Your task to perform on an android device: turn vacation reply on in the gmail app Image 0: 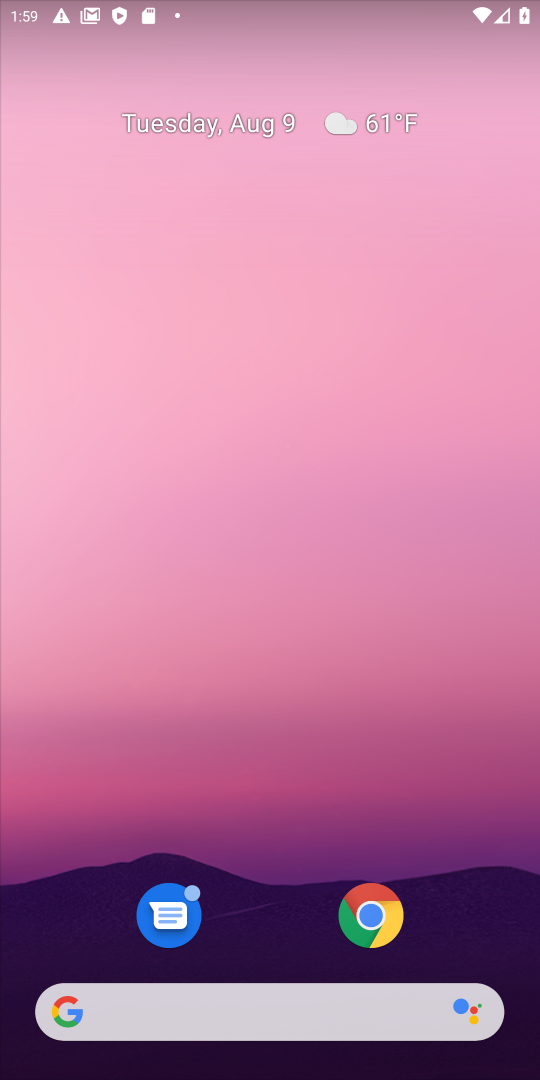
Step 0: click (289, 182)
Your task to perform on an android device: turn vacation reply on in the gmail app Image 1: 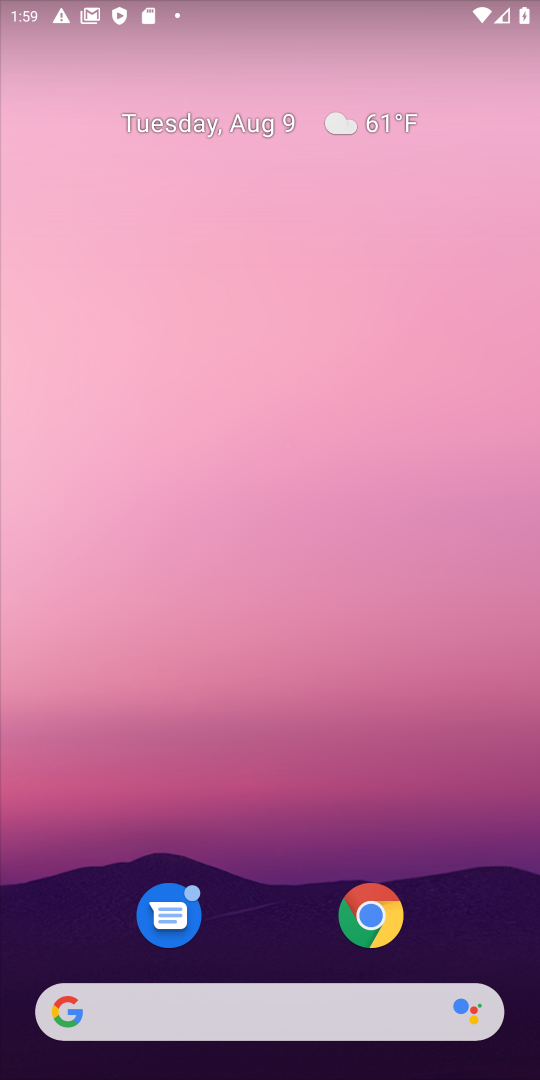
Step 1: click (263, 404)
Your task to perform on an android device: turn vacation reply on in the gmail app Image 2: 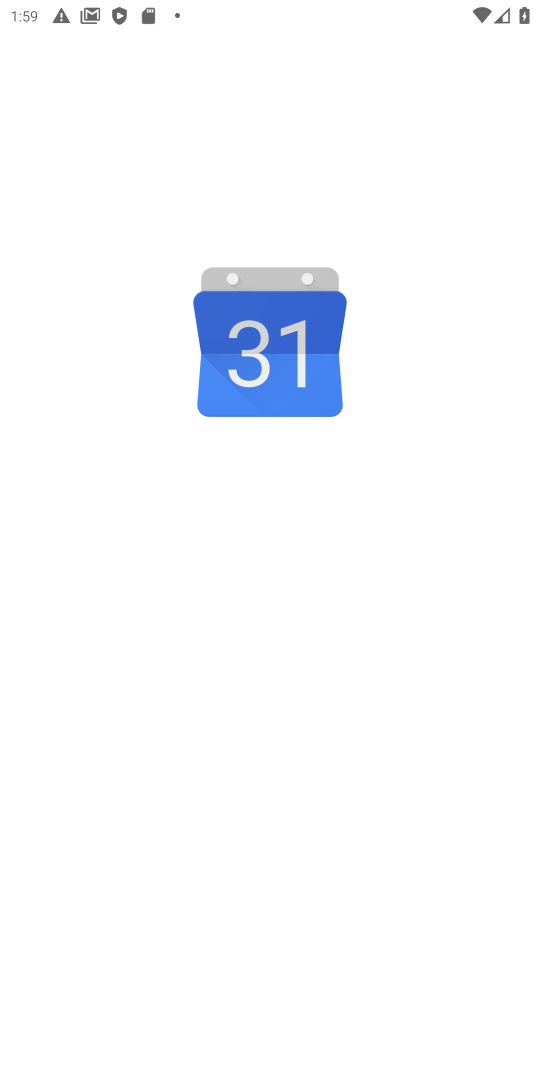
Step 2: drag from (282, 635) to (219, 308)
Your task to perform on an android device: turn vacation reply on in the gmail app Image 3: 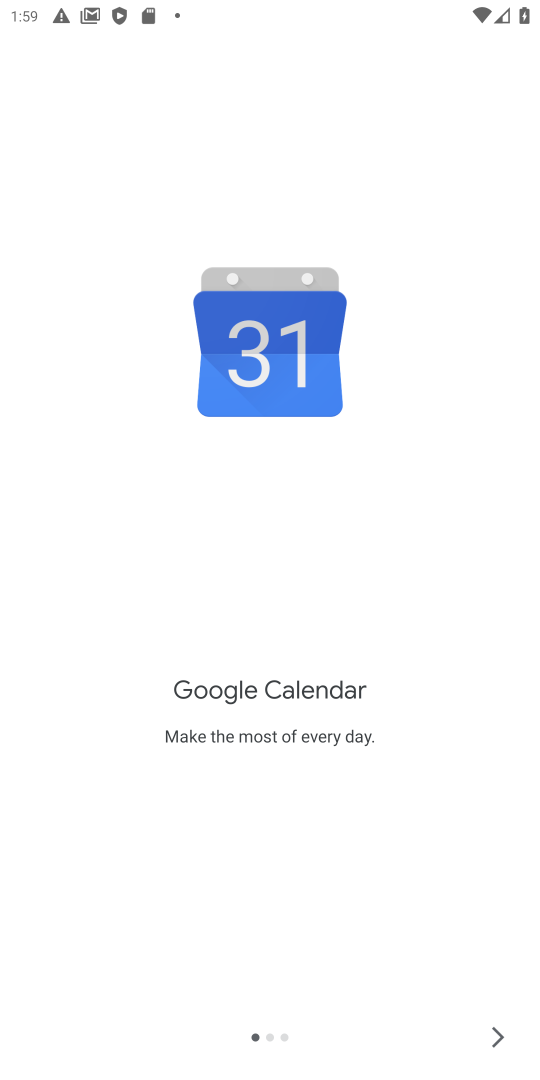
Step 3: press back button
Your task to perform on an android device: turn vacation reply on in the gmail app Image 4: 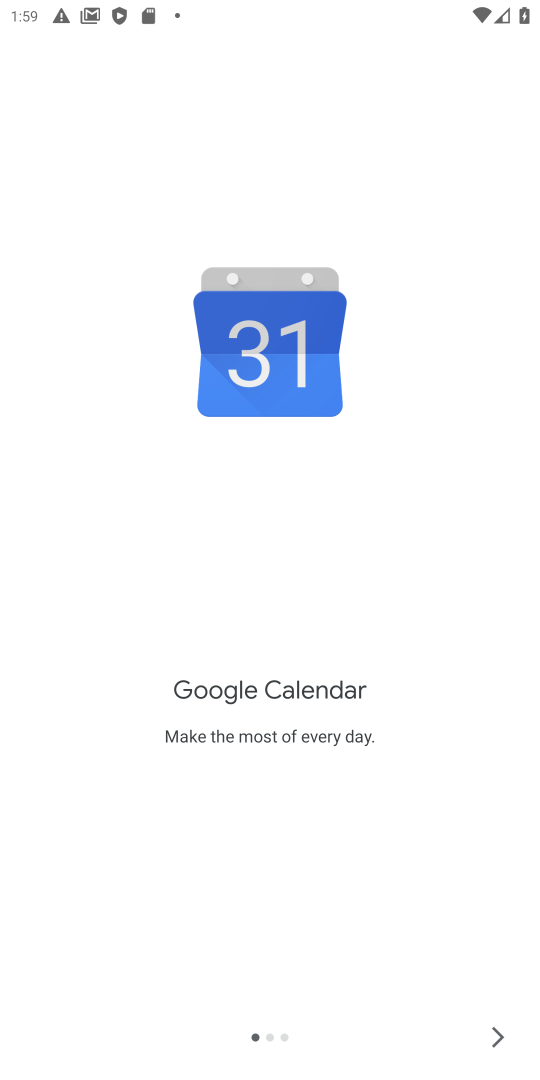
Step 4: press back button
Your task to perform on an android device: turn vacation reply on in the gmail app Image 5: 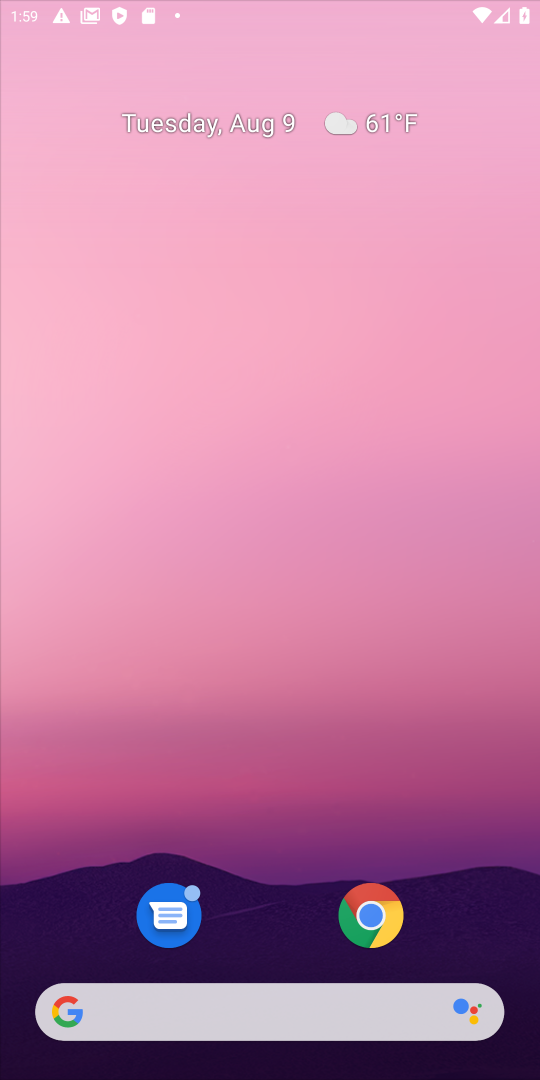
Step 5: press back button
Your task to perform on an android device: turn vacation reply on in the gmail app Image 6: 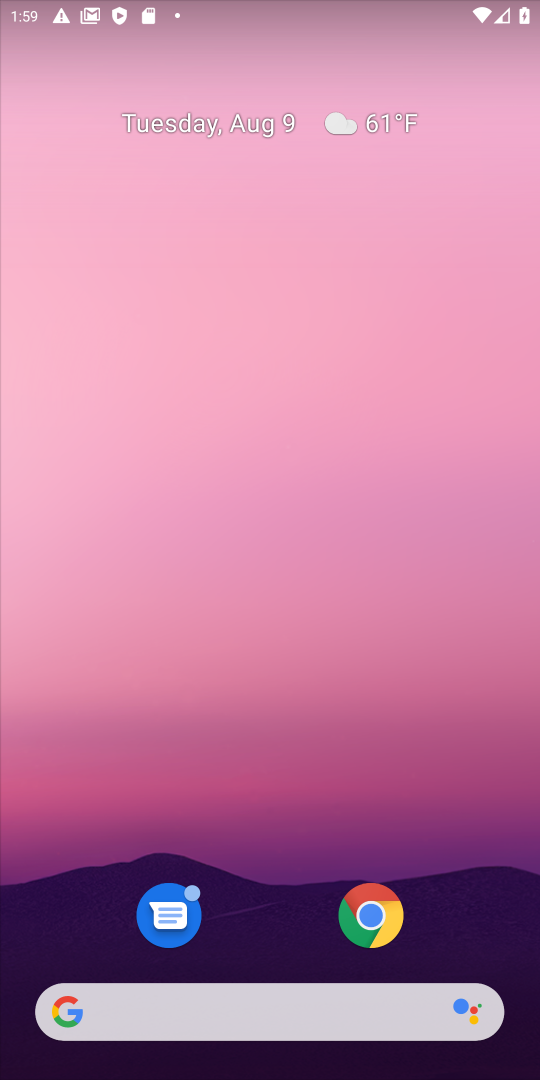
Step 6: drag from (314, 930) to (219, 102)
Your task to perform on an android device: turn vacation reply on in the gmail app Image 7: 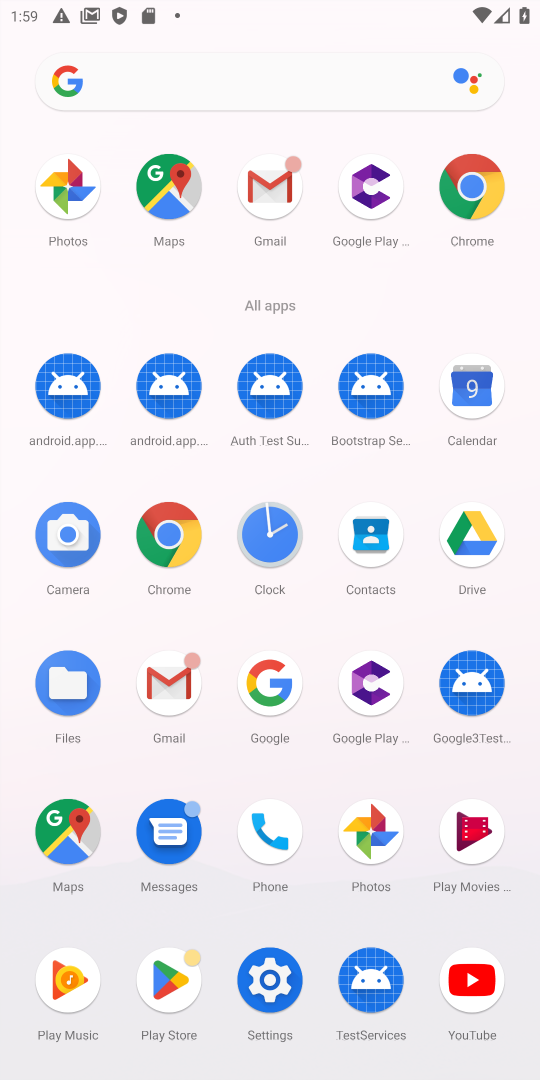
Step 7: click (262, 226)
Your task to perform on an android device: turn vacation reply on in the gmail app Image 8: 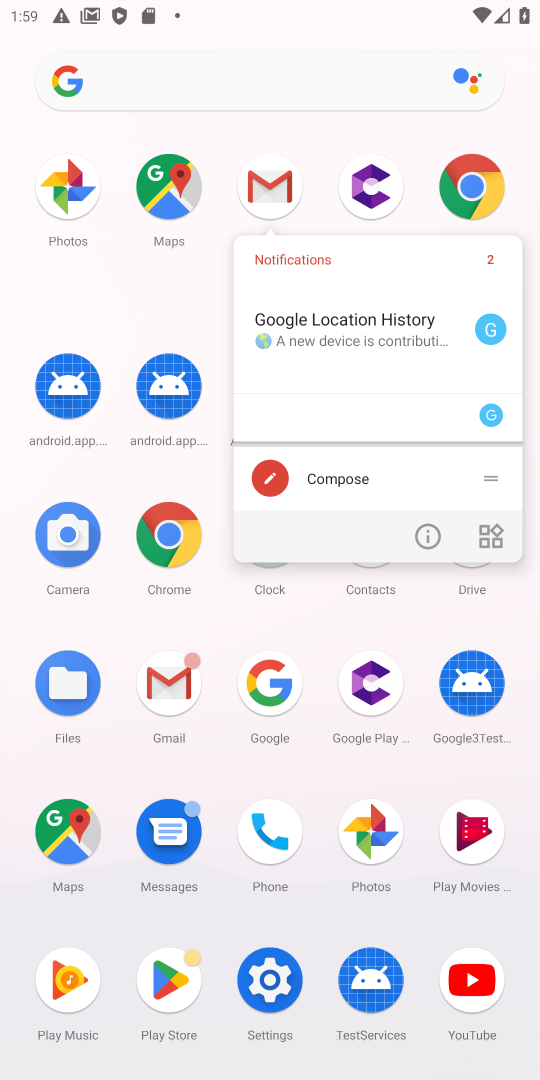
Step 8: click (253, 190)
Your task to perform on an android device: turn vacation reply on in the gmail app Image 9: 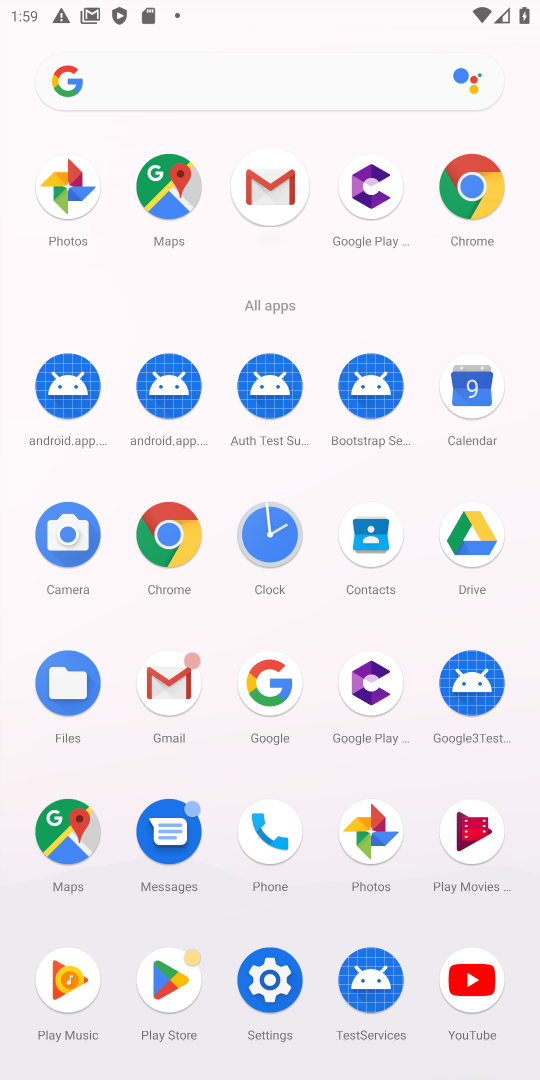
Step 9: click (269, 186)
Your task to perform on an android device: turn vacation reply on in the gmail app Image 10: 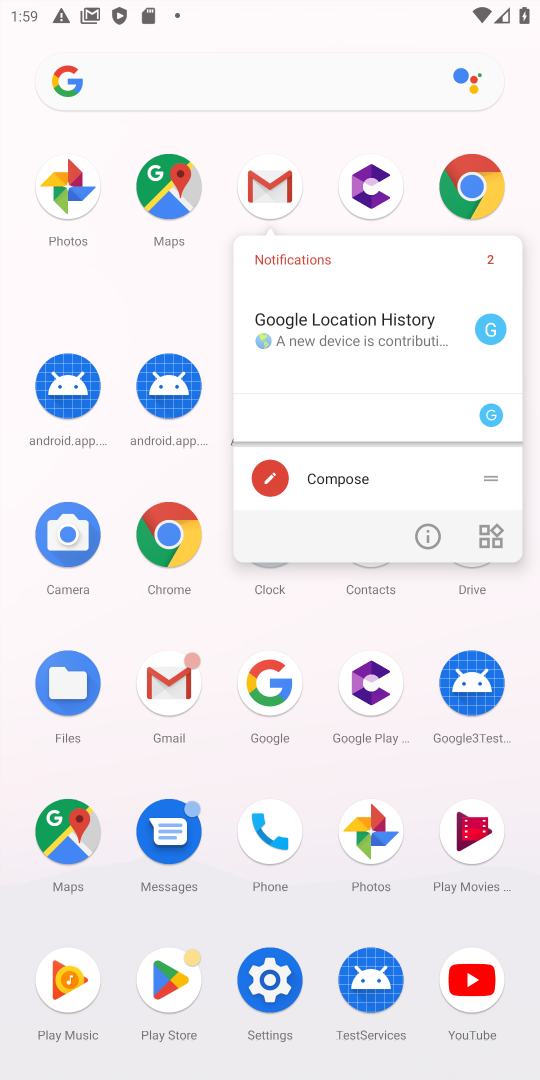
Step 10: click (273, 188)
Your task to perform on an android device: turn vacation reply on in the gmail app Image 11: 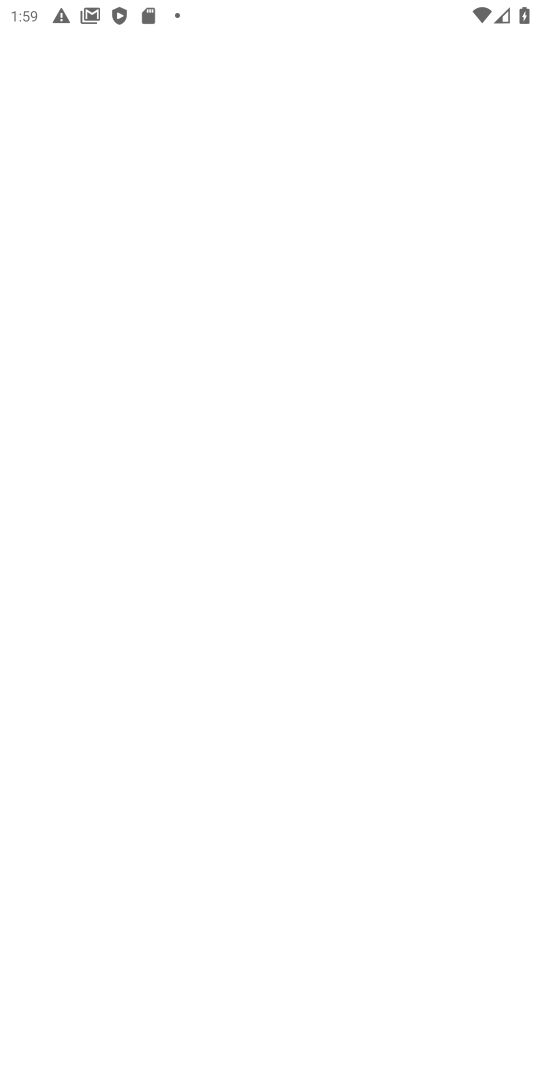
Step 11: click (286, 199)
Your task to perform on an android device: turn vacation reply on in the gmail app Image 12: 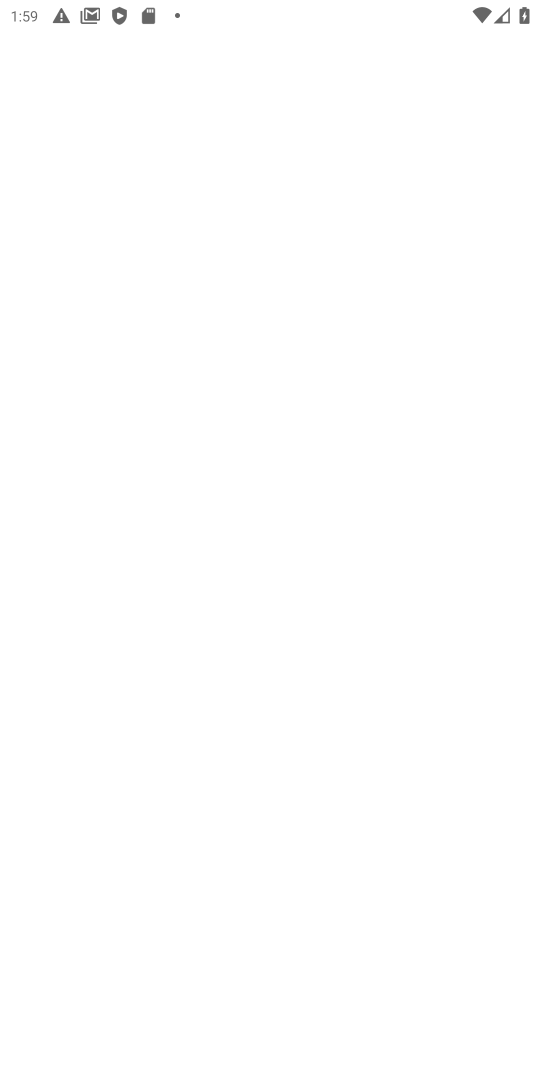
Step 12: click (286, 199)
Your task to perform on an android device: turn vacation reply on in the gmail app Image 13: 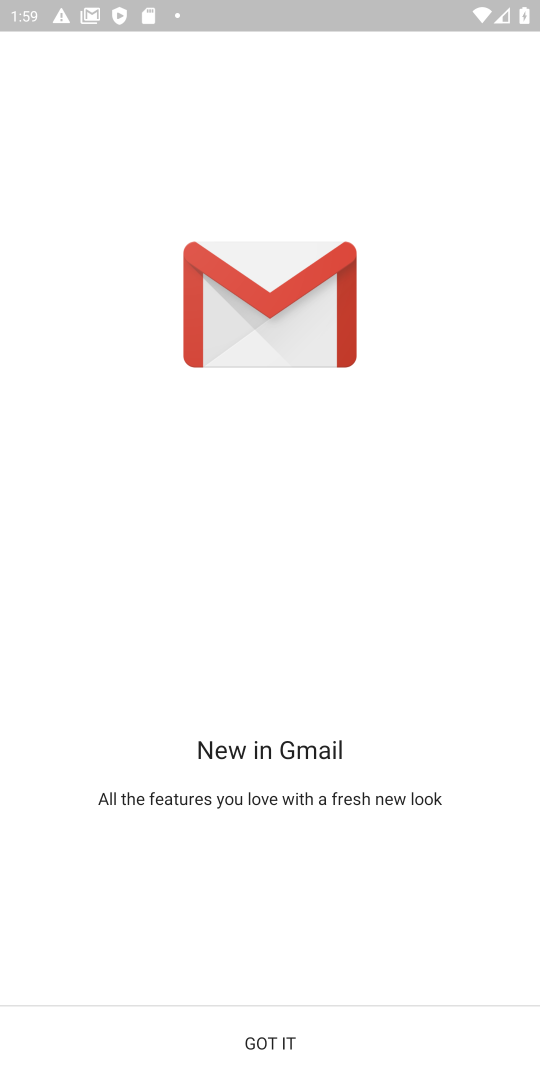
Step 13: click (272, 1021)
Your task to perform on an android device: turn vacation reply on in the gmail app Image 14: 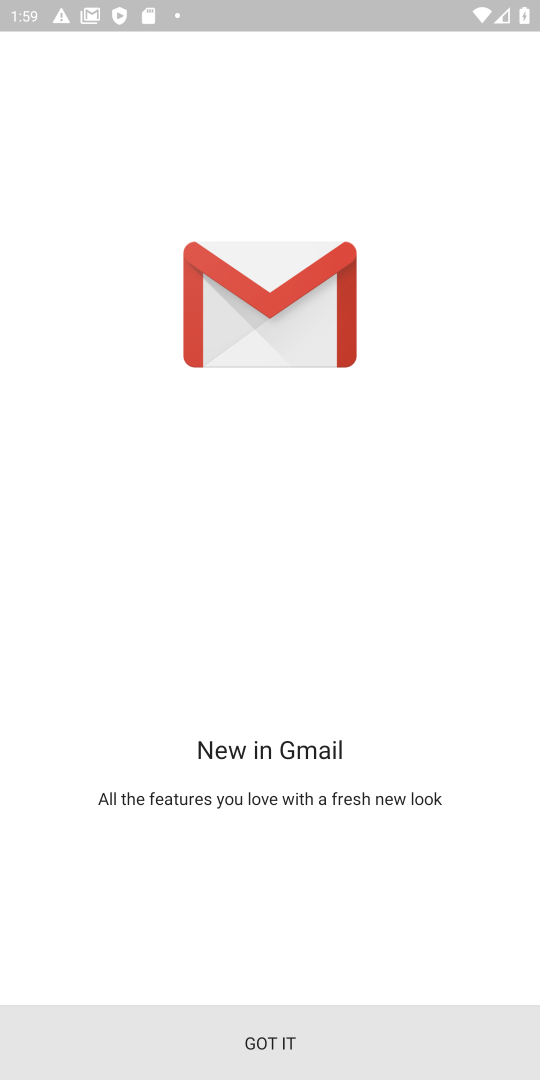
Step 14: drag from (284, 1051) to (386, 1072)
Your task to perform on an android device: turn vacation reply on in the gmail app Image 15: 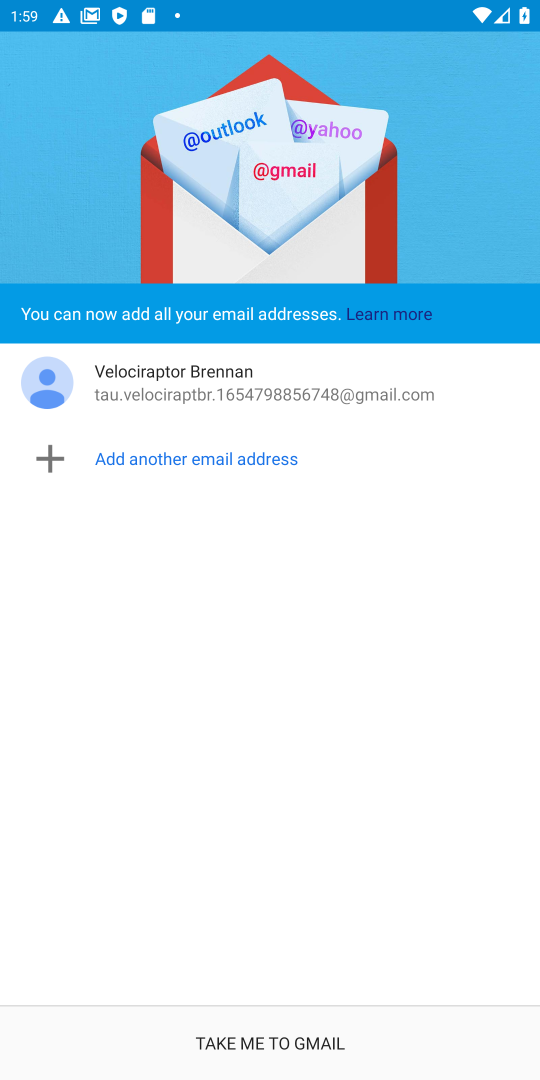
Step 15: click (333, 1072)
Your task to perform on an android device: turn vacation reply on in the gmail app Image 16: 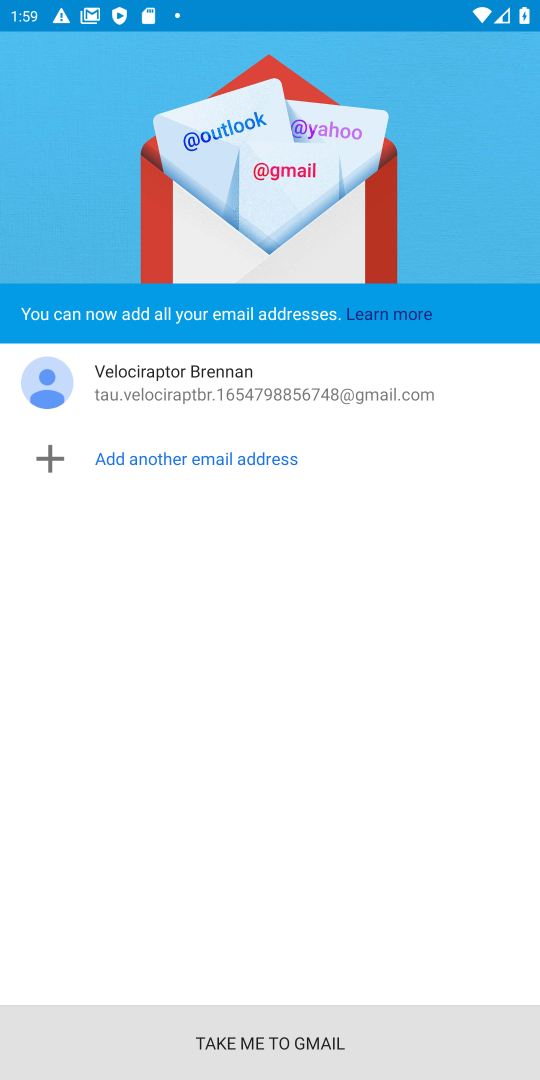
Step 16: click (362, 1056)
Your task to perform on an android device: turn vacation reply on in the gmail app Image 17: 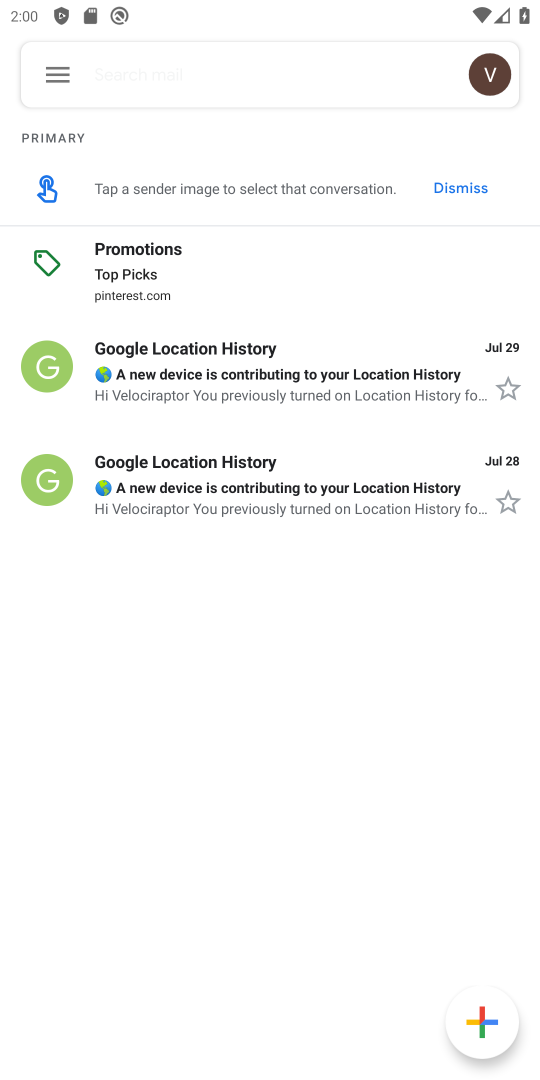
Step 17: click (60, 77)
Your task to perform on an android device: turn vacation reply on in the gmail app Image 18: 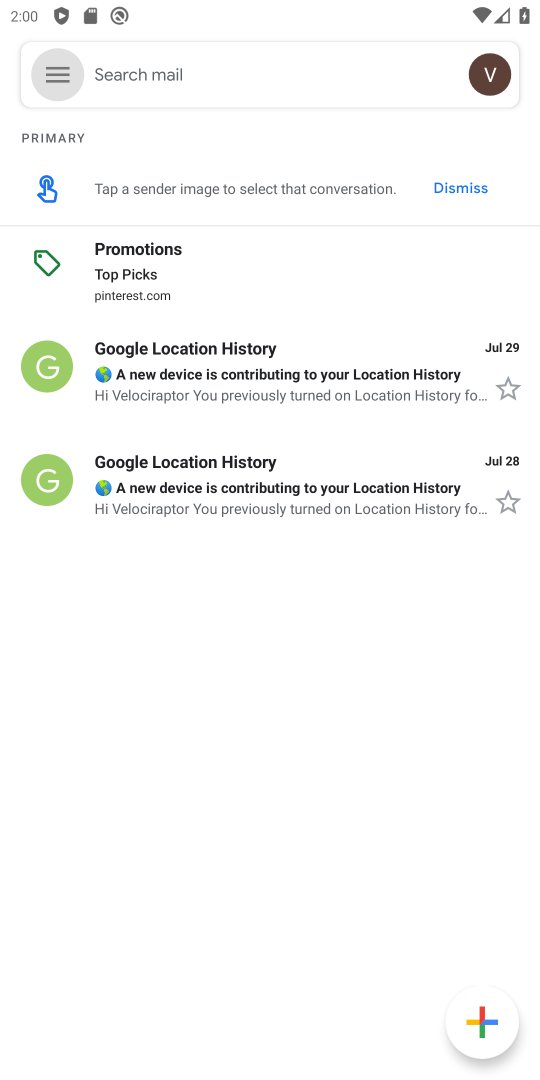
Step 18: click (70, 88)
Your task to perform on an android device: turn vacation reply on in the gmail app Image 19: 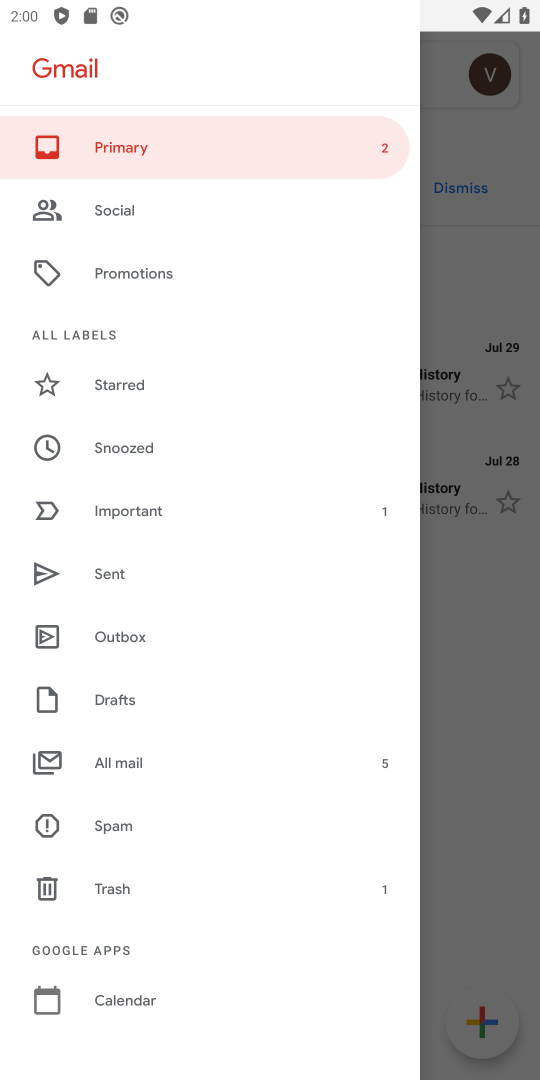
Step 19: drag from (132, 984) to (74, 348)
Your task to perform on an android device: turn vacation reply on in the gmail app Image 20: 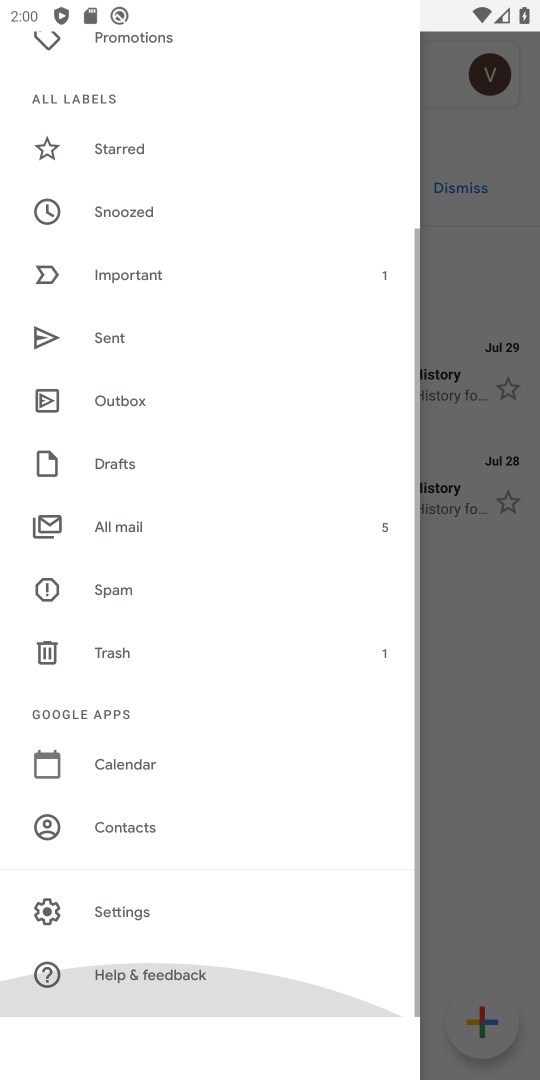
Step 20: drag from (159, 777) to (184, 225)
Your task to perform on an android device: turn vacation reply on in the gmail app Image 21: 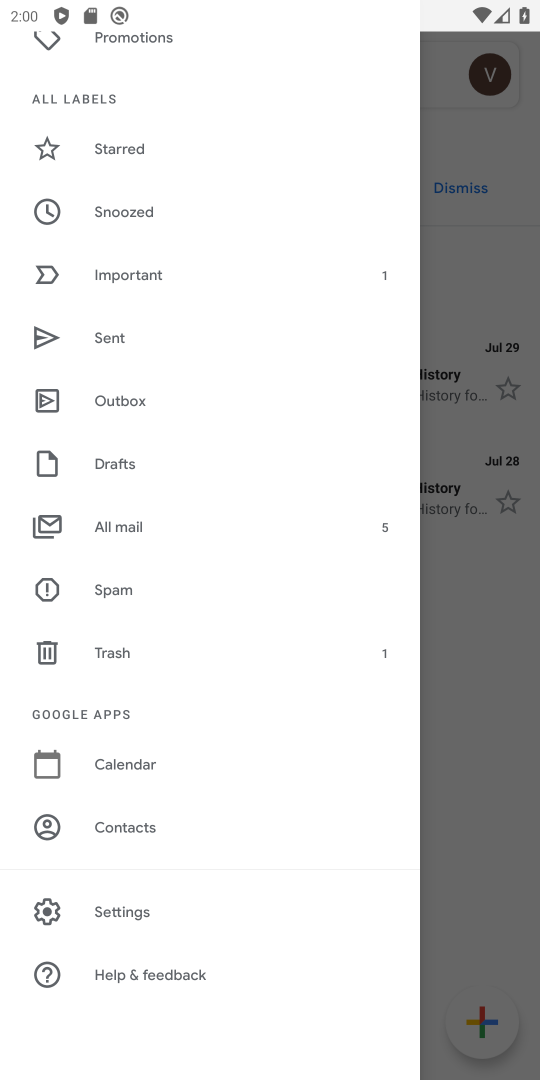
Step 21: click (118, 922)
Your task to perform on an android device: turn vacation reply on in the gmail app Image 22: 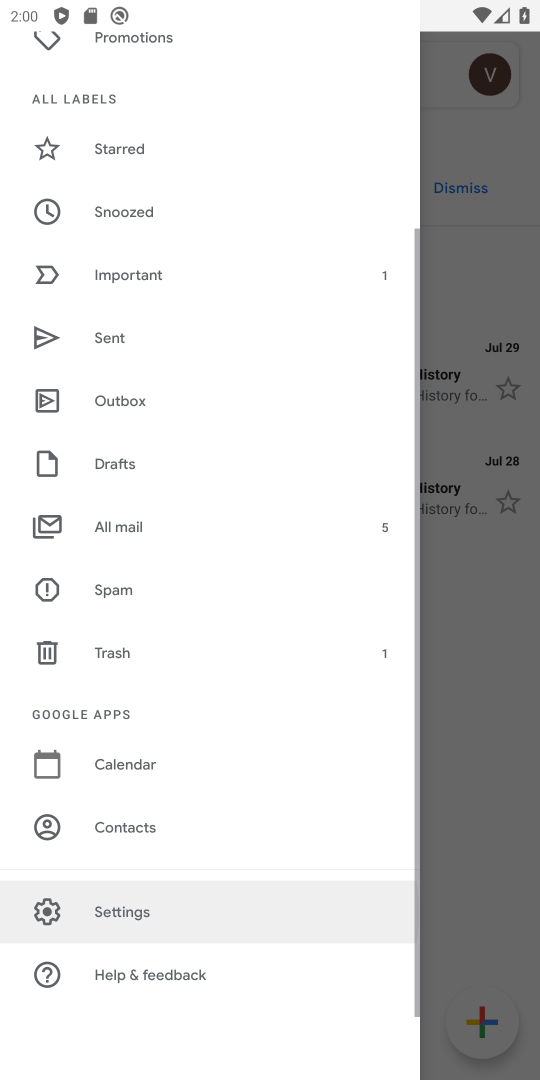
Step 22: click (108, 923)
Your task to perform on an android device: turn vacation reply on in the gmail app Image 23: 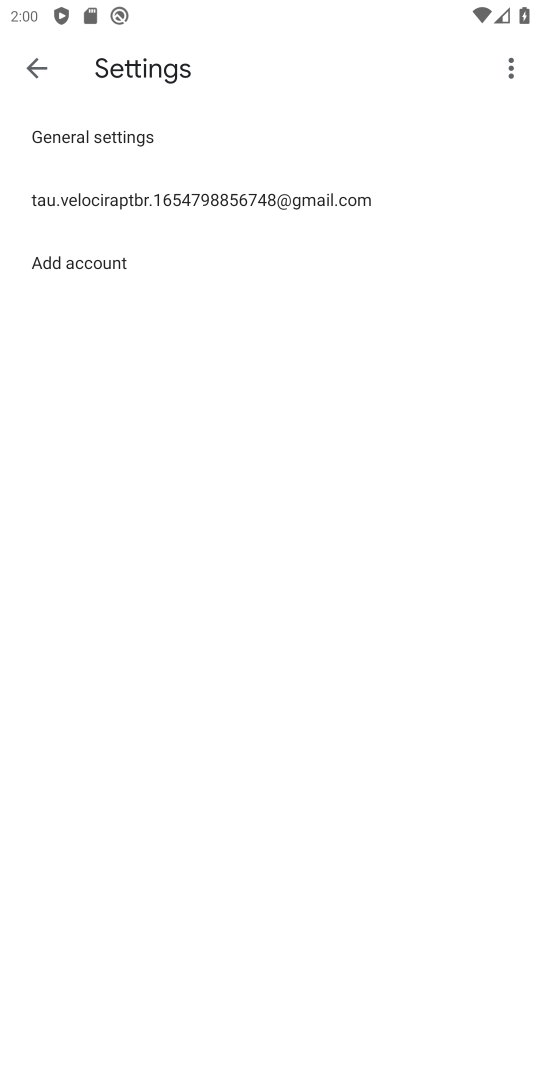
Step 23: click (152, 212)
Your task to perform on an android device: turn vacation reply on in the gmail app Image 24: 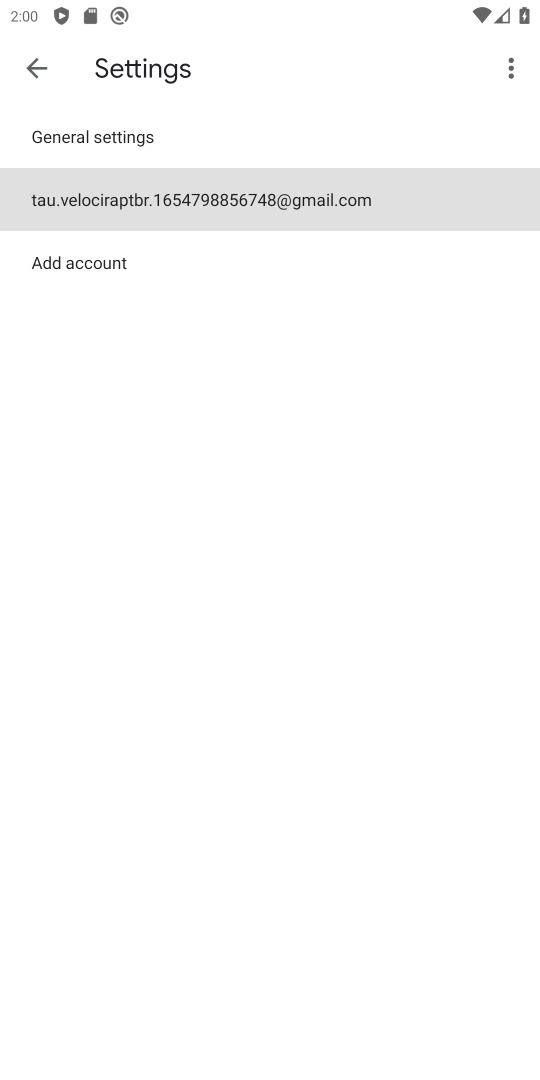
Step 24: click (150, 211)
Your task to perform on an android device: turn vacation reply on in the gmail app Image 25: 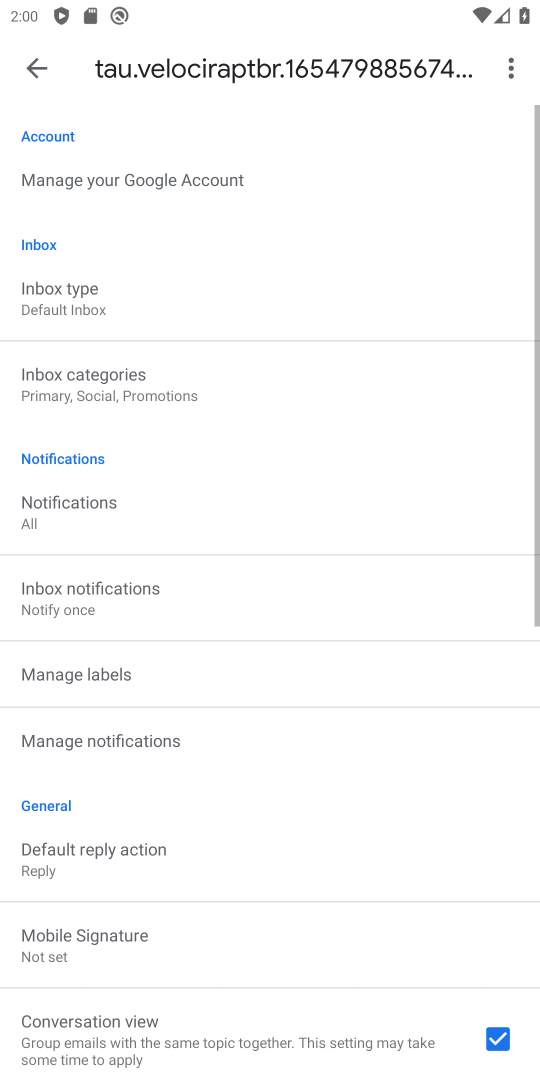
Step 25: drag from (99, 871) to (96, 332)
Your task to perform on an android device: turn vacation reply on in the gmail app Image 26: 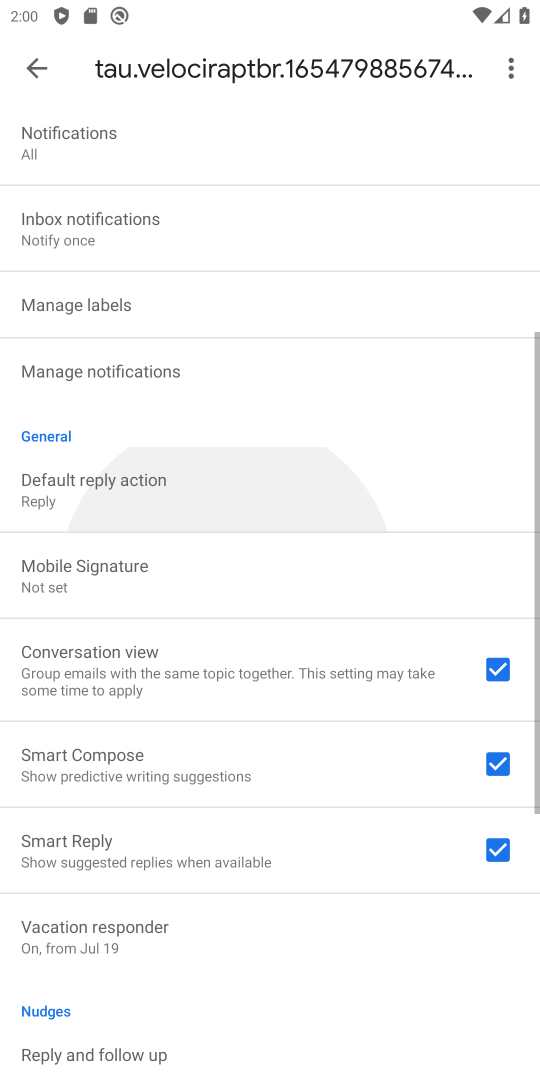
Step 26: drag from (161, 921) to (161, 468)
Your task to perform on an android device: turn vacation reply on in the gmail app Image 27: 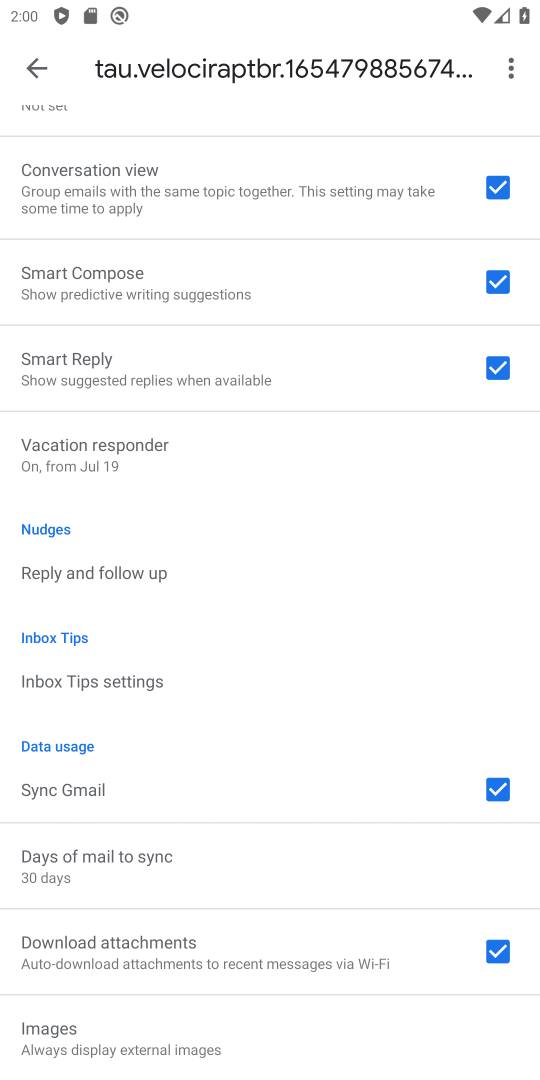
Step 27: click (80, 471)
Your task to perform on an android device: turn vacation reply on in the gmail app Image 28: 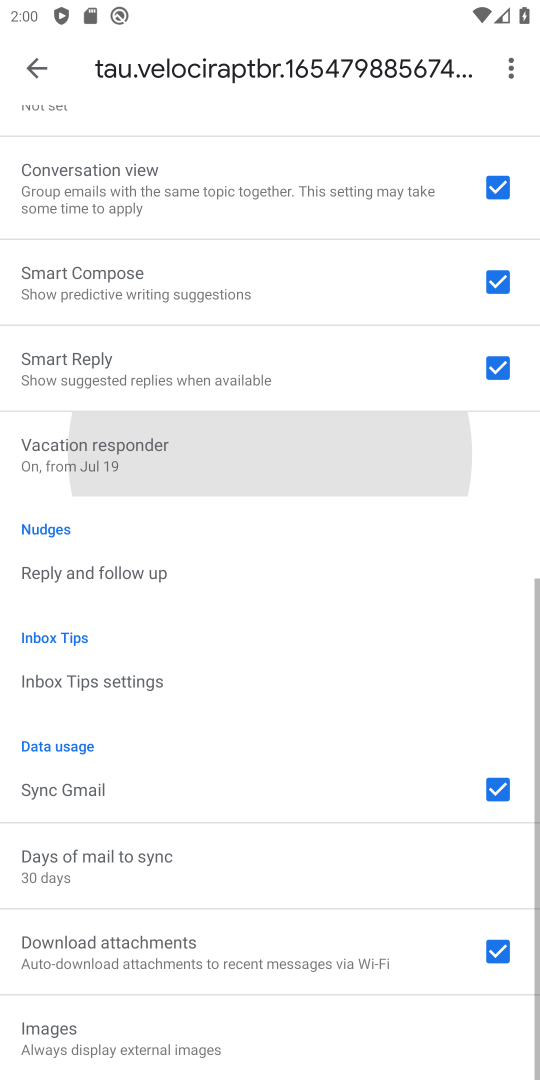
Step 28: click (83, 470)
Your task to perform on an android device: turn vacation reply on in the gmail app Image 29: 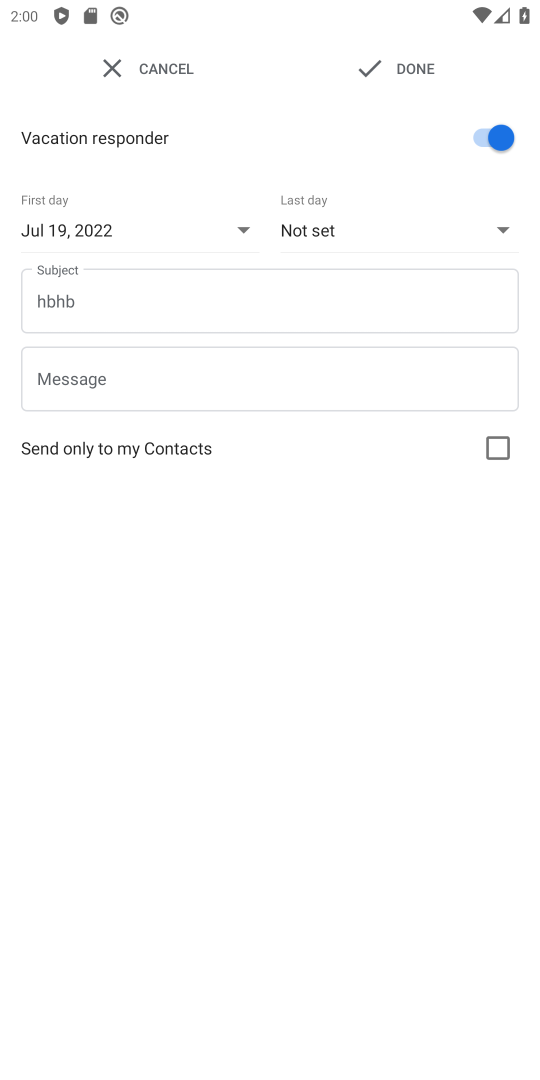
Step 29: task complete